Your task to perform on an android device: install app "Messenger Lite" Image 0: 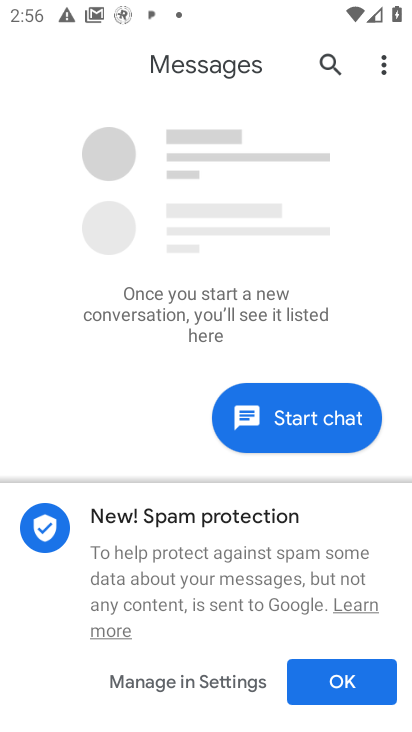
Step 0: press back button
Your task to perform on an android device: install app "Messenger Lite" Image 1: 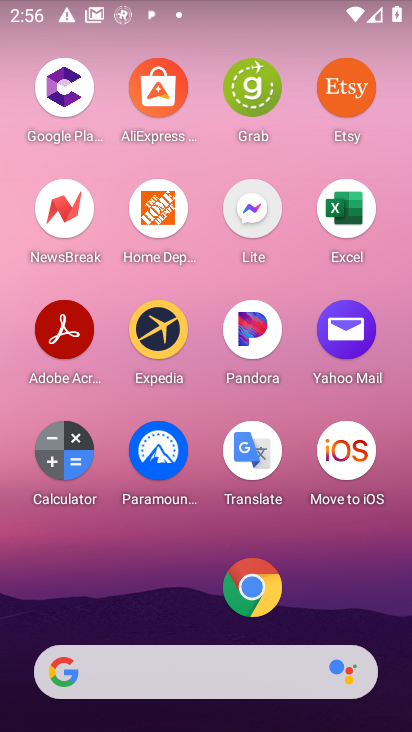
Step 1: drag from (188, 616) to (251, 297)
Your task to perform on an android device: install app "Messenger Lite" Image 2: 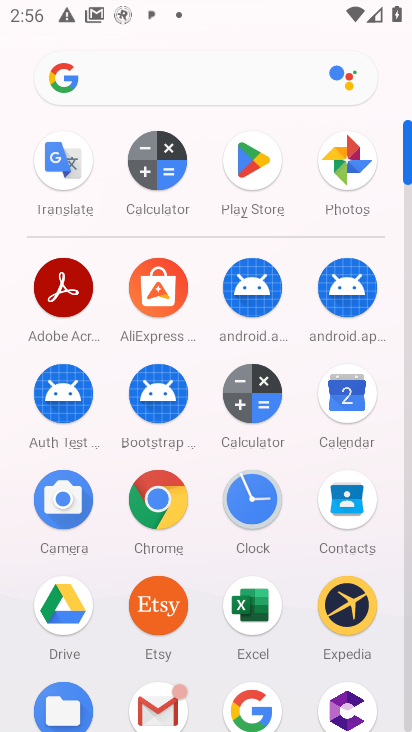
Step 2: click (255, 178)
Your task to perform on an android device: install app "Messenger Lite" Image 3: 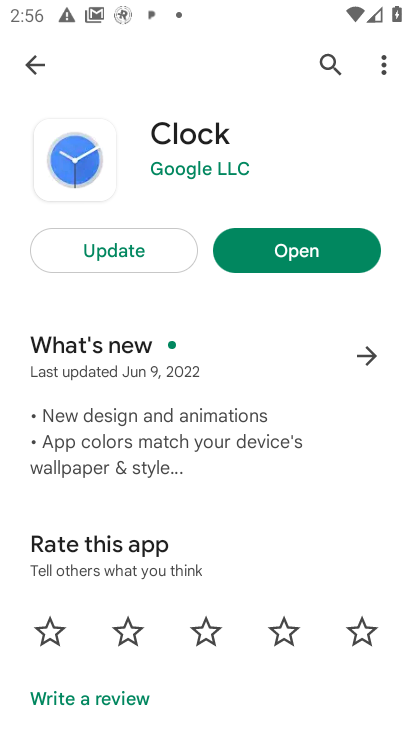
Step 3: click (328, 57)
Your task to perform on an android device: install app "Messenger Lite" Image 4: 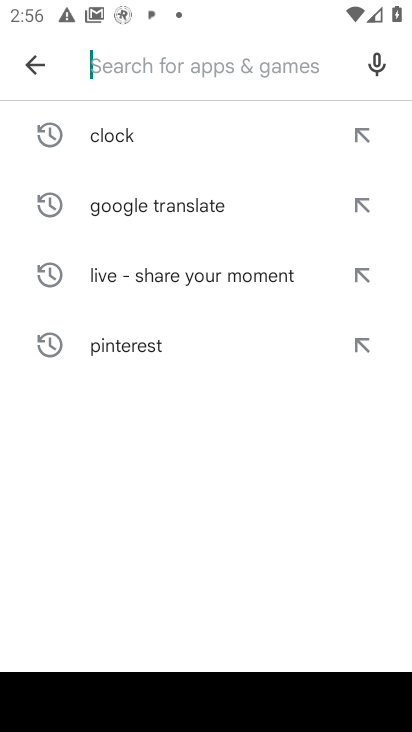
Step 4: type "Messenger Lite"
Your task to perform on an android device: install app "Messenger Lite" Image 5: 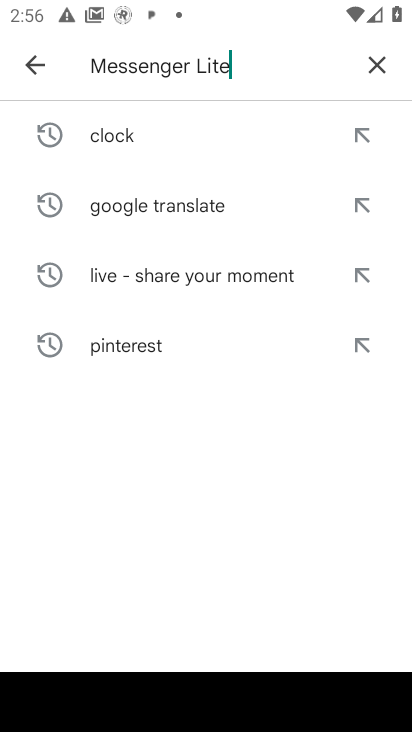
Step 5: type ""
Your task to perform on an android device: install app "Messenger Lite" Image 6: 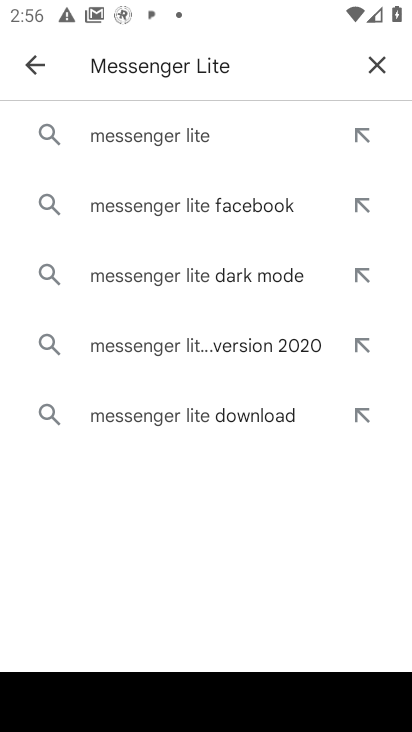
Step 6: click (176, 115)
Your task to perform on an android device: install app "Messenger Lite" Image 7: 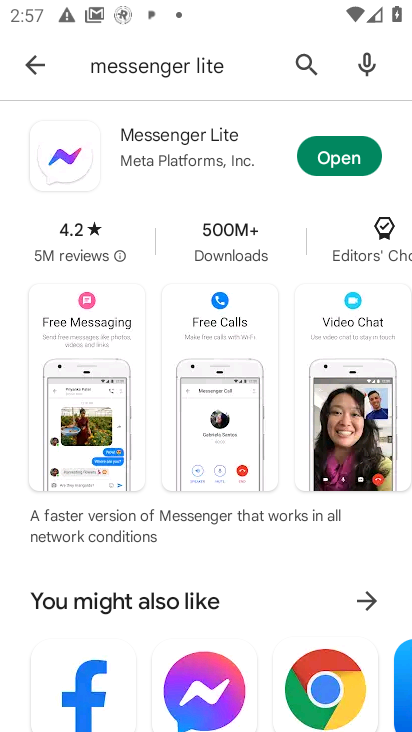
Step 7: task complete